Your task to perform on an android device: What time is it in London? Image 0: 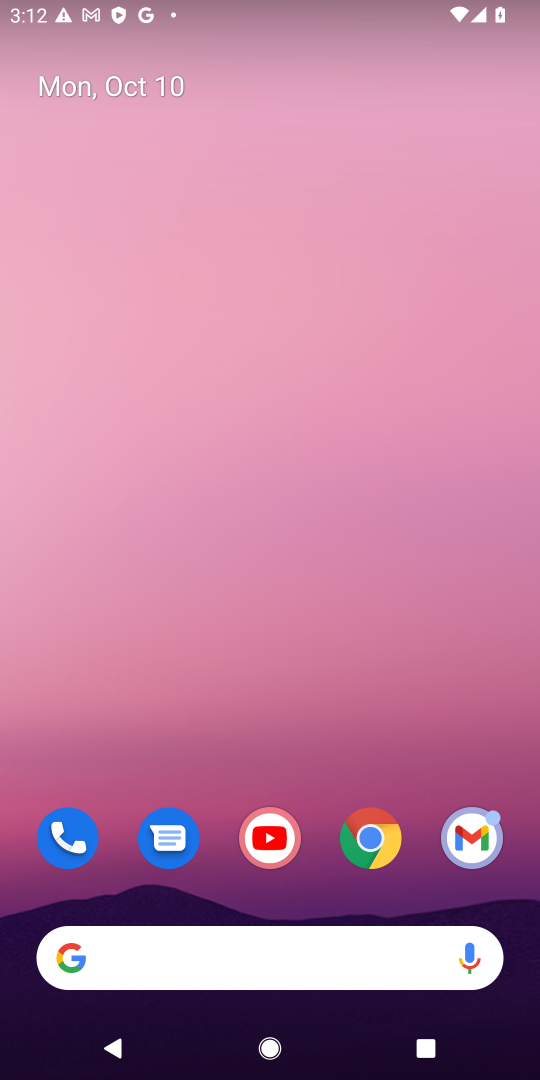
Step 0: click (365, 835)
Your task to perform on an android device: What time is it in London? Image 1: 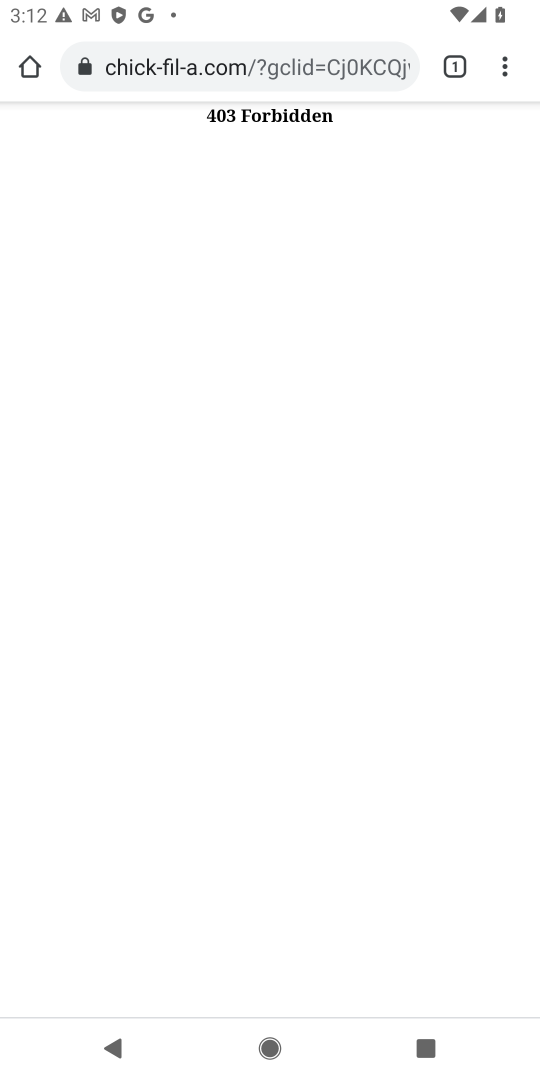
Step 1: click (218, 57)
Your task to perform on an android device: What time is it in London? Image 2: 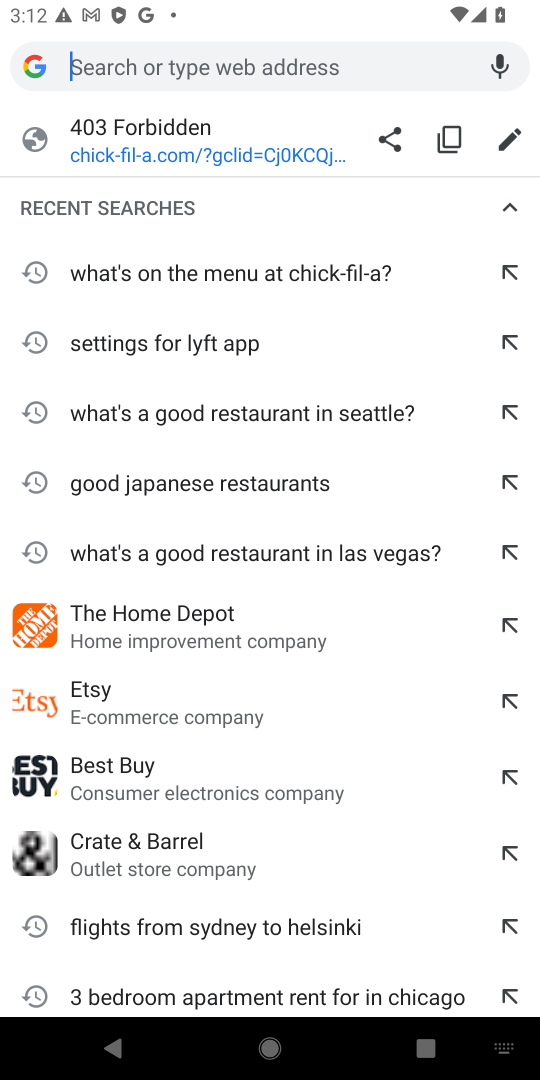
Step 2: type "time in london"
Your task to perform on an android device: What time is it in London? Image 3: 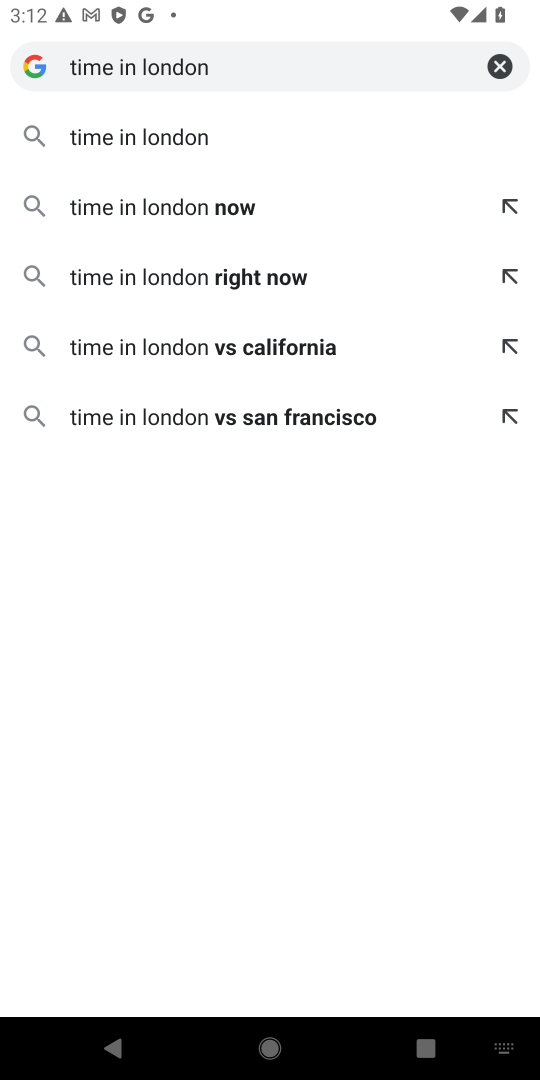
Step 3: click (192, 145)
Your task to perform on an android device: What time is it in London? Image 4: 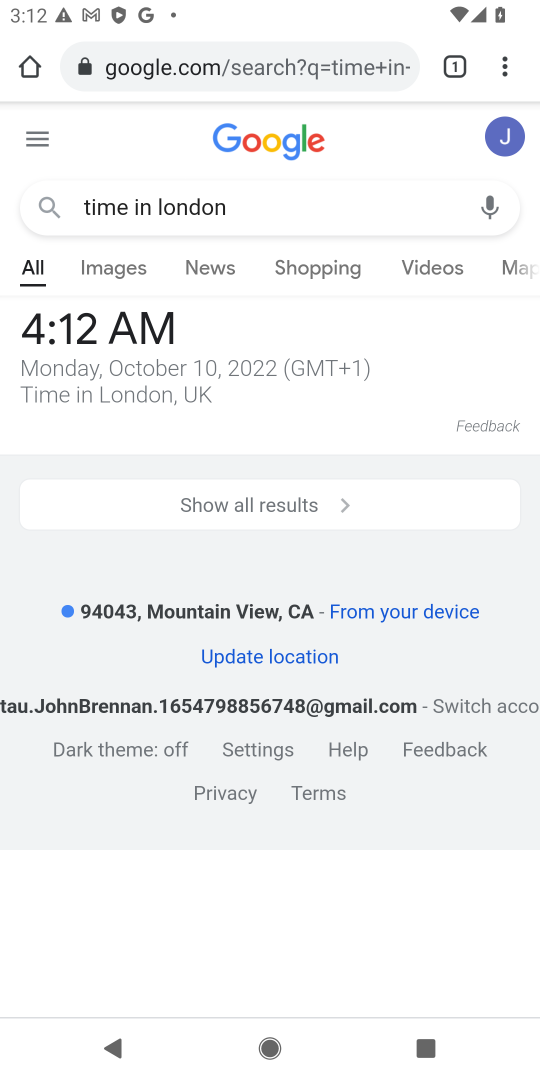
Step 4: task complete